Your task to perform on an android device: install app "Duolingo: language lessons" Image 0: 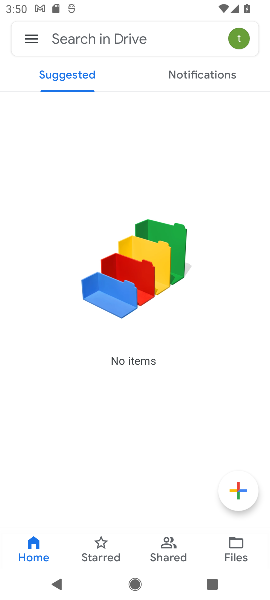
Step 0: press home button
Your task to perform on an android device: install app "Duolingo: language lessons" Image 1: 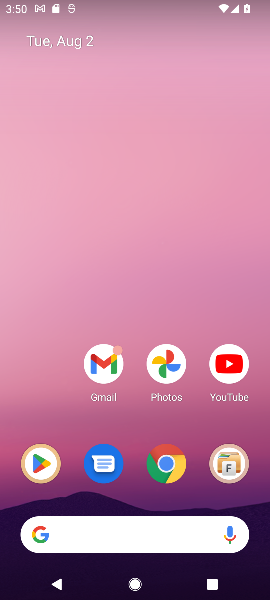
Step 1: click (45, 460)
Your task to perform on an android device: install app "Duolingo: language lessons" Image 2: 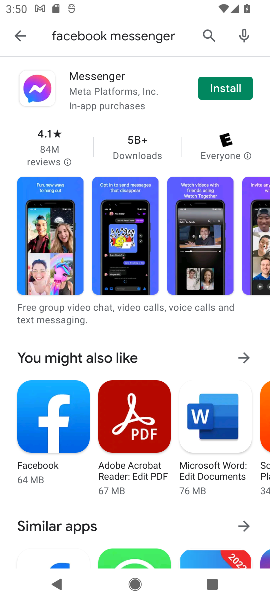
Step 2: click (210, 34)
Your task to perform on an android device: install app "Duolingo: language lessons" Image 3: 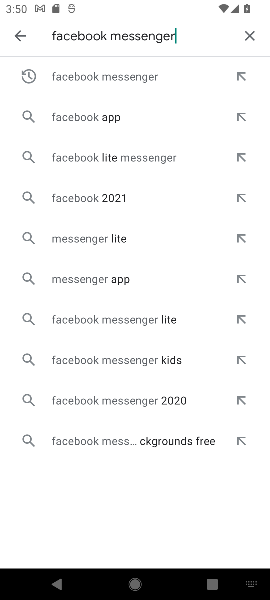
Step 3: click (246, 30)
Your task to perform on an android device: install app "Duolingo: language lessons" Image 4: 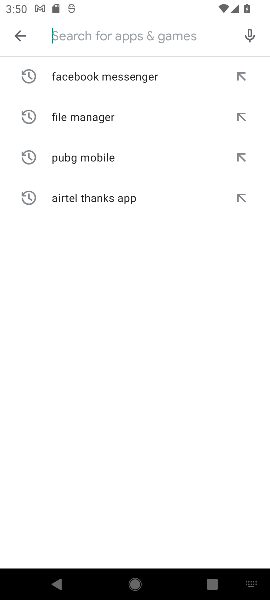
Step 4: type "Duolingo: language lessons"
Your task to perform on an android device: install app "Duolingo: language lessons" Image 5: 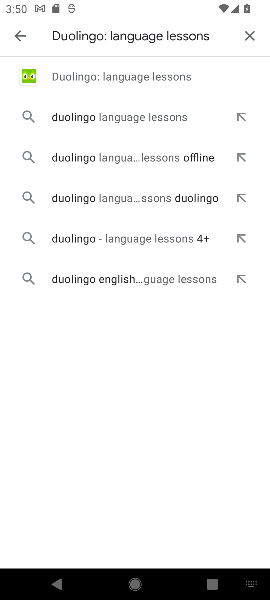
Step 5: click (172, 72)
Your task to perform on an android device: install app "Duolingo: language lessons" Image 6: 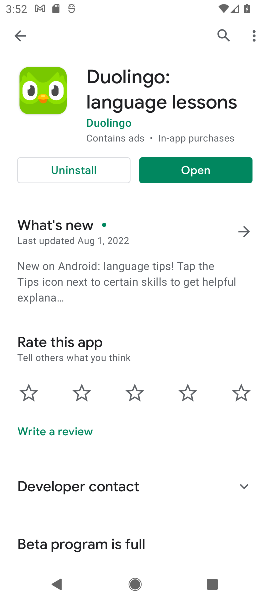
Step 6: task complete